Your task to perform on an android device: Go to notification settings Image 0: 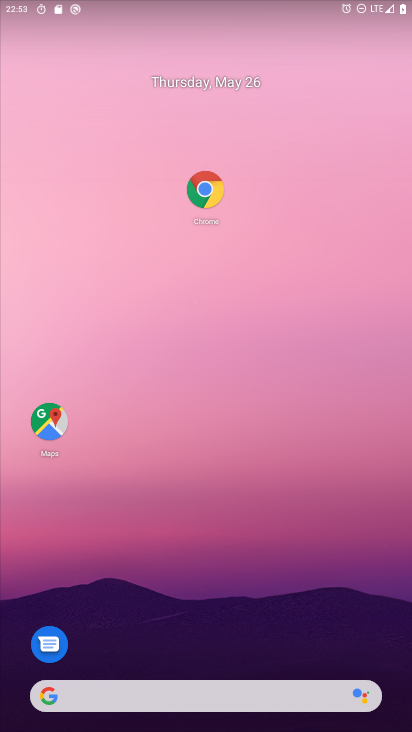
Step 0: drag from (198, 630) to (215, 308)
Your task to perform on an android device: Go to notification settings Image 1: 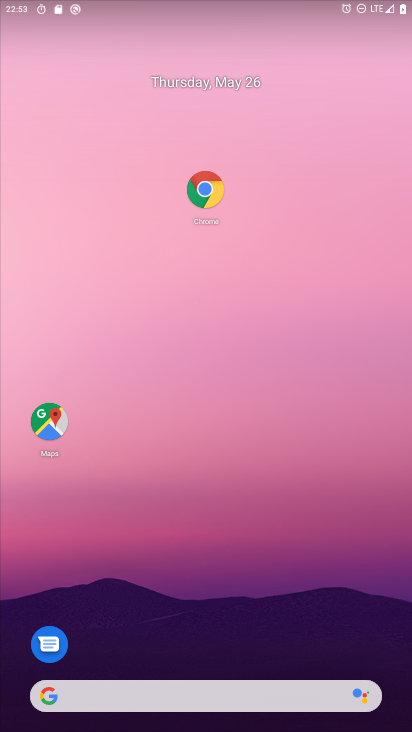
Step 1: drag from (194, 655) to (225, 1)
Your task to perform on an android device: Go to notification settings Image 2: 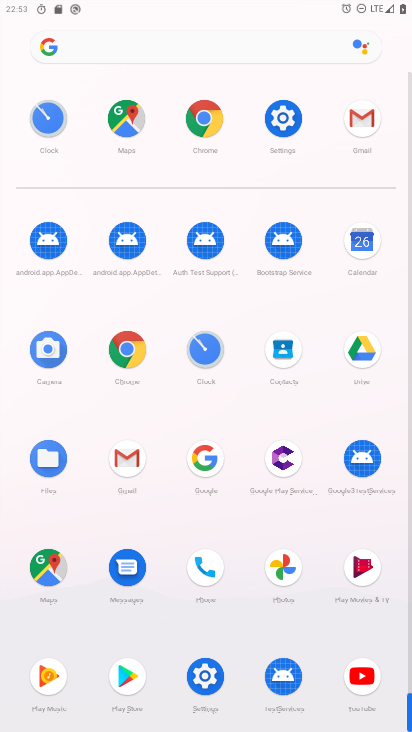
Step 2: click (289, 107)
Your task to perform on an android device: Go to notification settings Image 3: 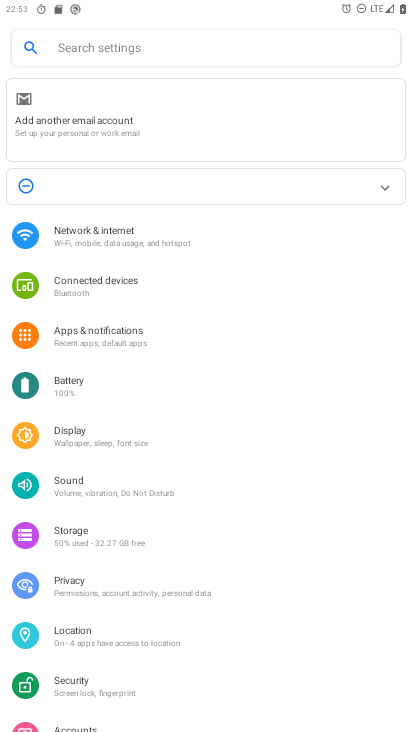
Step 3: click (145, 345)
Your task to perform on an android device: Go to notification settings Image 4: 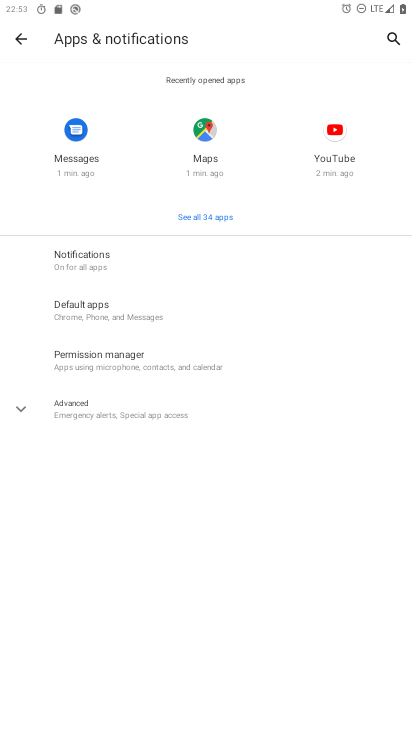
Step 4: click (121, 264)
Your task to perform on an android device: Go to notification settings Image 5: 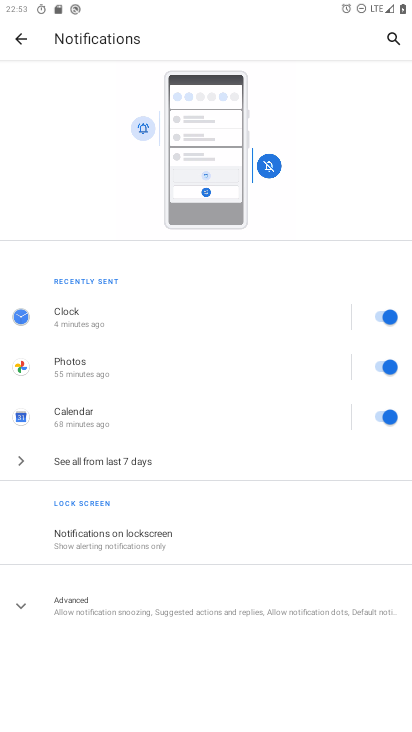
Step 5: task complete